Your task to perform on an android device: search for starred emails in the gmail app Image 0: 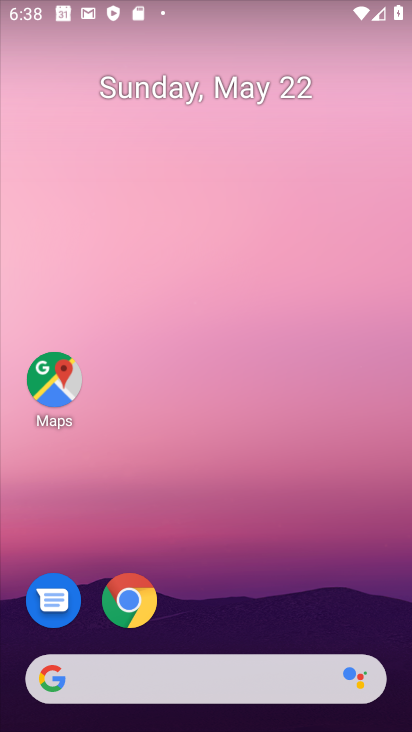
Step 0: drag from (376, 625) to (224, 115)
Your task to perform on an android device: search for starred emails in the gmail app Image 1: 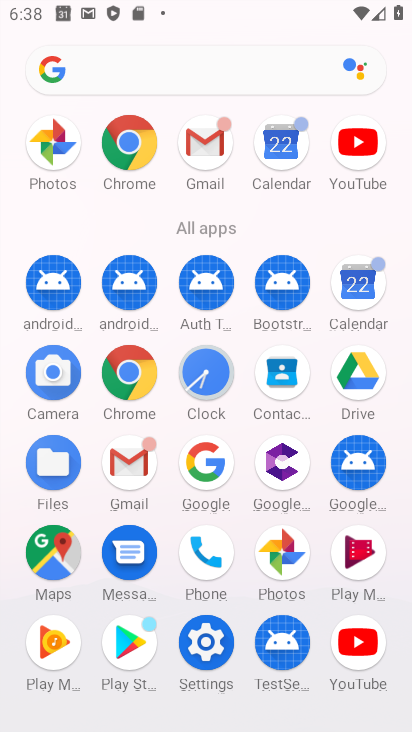
Step 1: click (141, 473)
Your task to perform on an android device: search for starred emails in the gmail app Image 2: 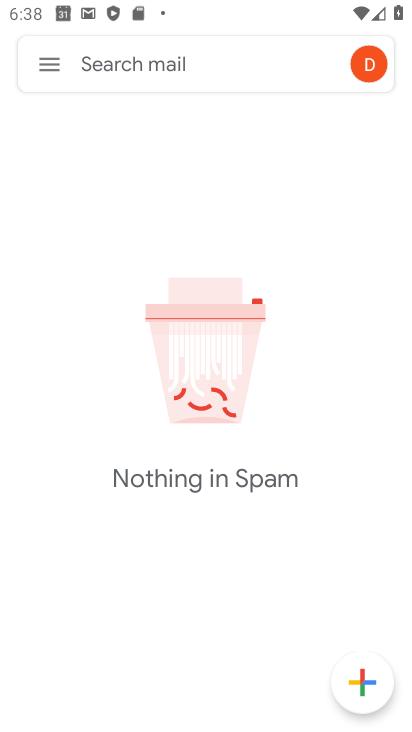
Step 2: click (49, 66)
Your task to perform on an android device: search for starred emails in the gmail app Image 3: 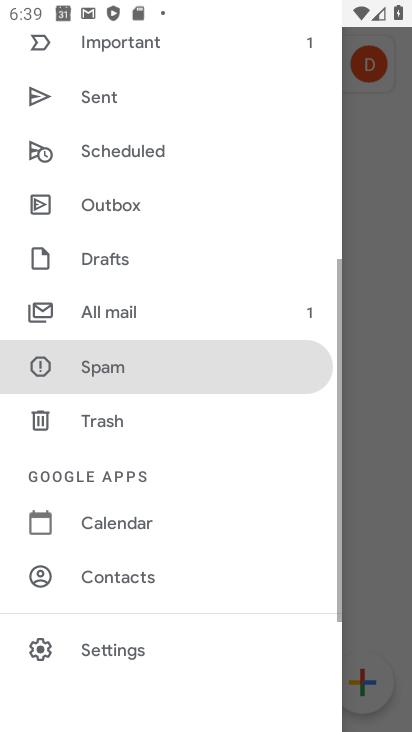
Step 3: drag from (88, 103) to (129, 584)
Your task to perform on an android device: search for starred emails in the gmail app Image 4: 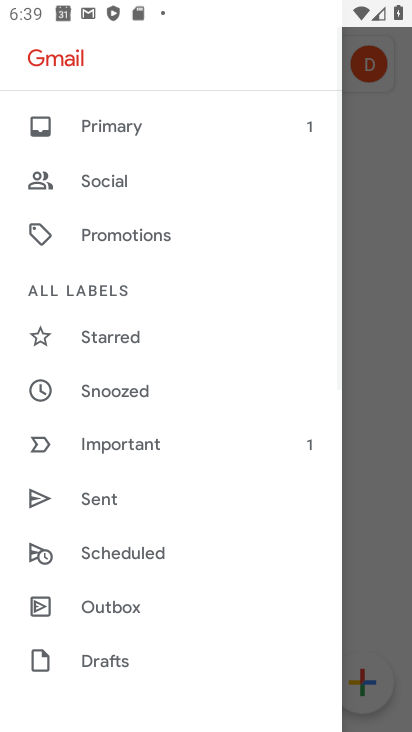
Step 4: click (129, 336)
Your task to perform on an android device: search for starred emails in the gmail app Image 5: 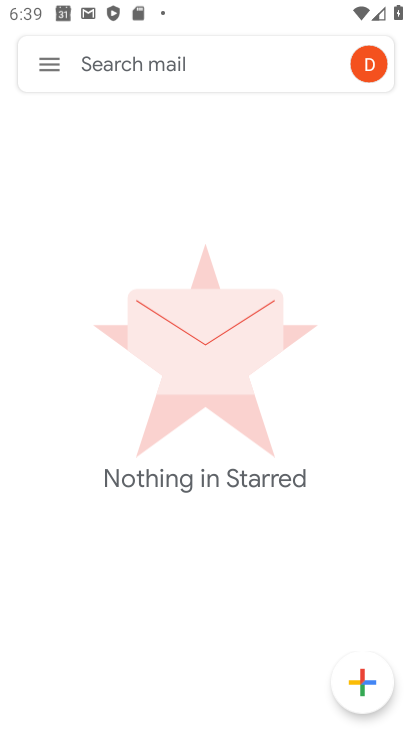
Step 5: task complete